Your task to perform on an android device: turn on translation in the chrome app Image 0: 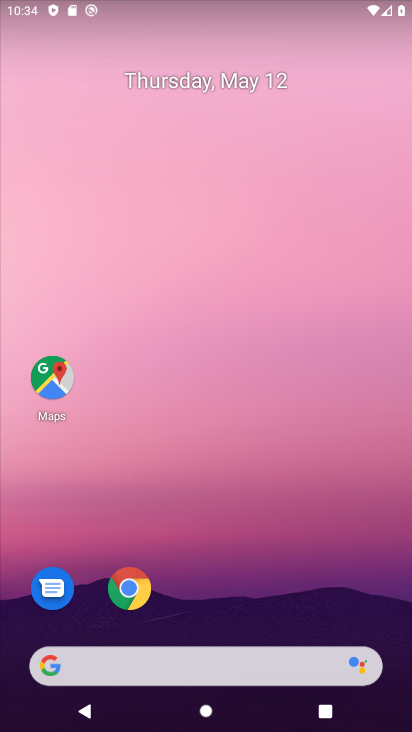
Step 0: click (133, 585)
Your task to perform on an android device: turn on translation in the chrome app Image 1: 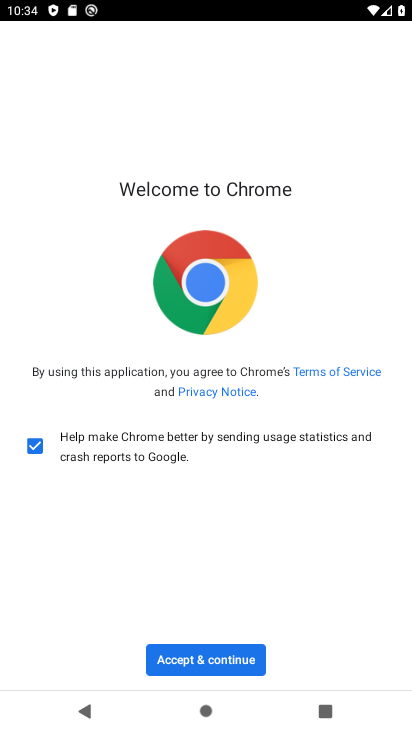
Step 1: click (232, 656)
Your task to perform on an android device: turn on translation in the chrome app Image 2: 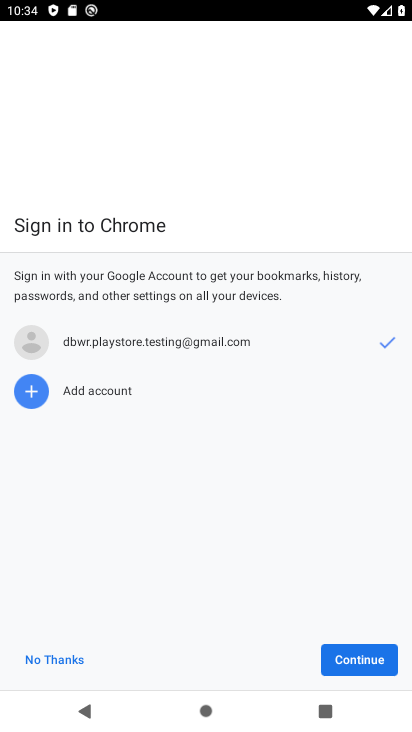
Step 2: click (346, 667)
Your task to perform on an android device: turn on translation in the chrome app Image 3: 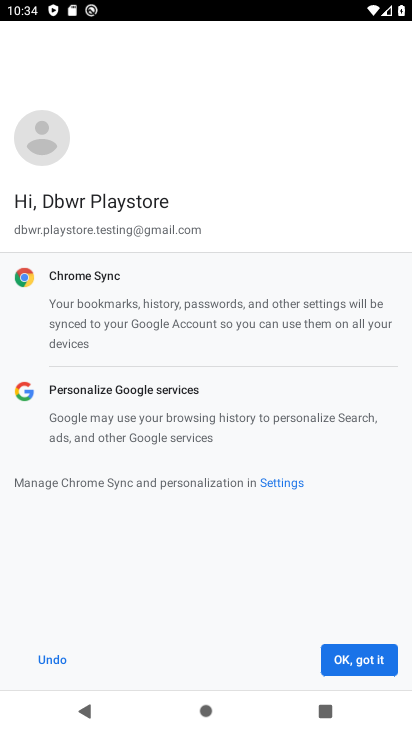
Step 3: click (350, 664)
Your task to perform on an android device: turn on translation in the chrome app Image 4: 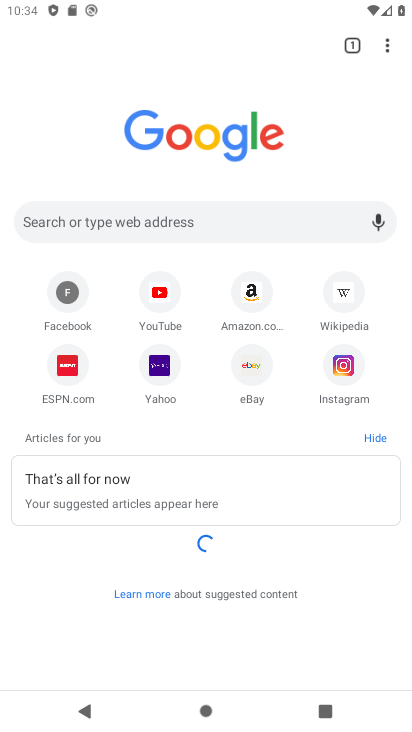
Step 4: drag from (383, 50) to (257, 382)
Your task to perform on an android device: turn on translation in the chrome app Image 5: 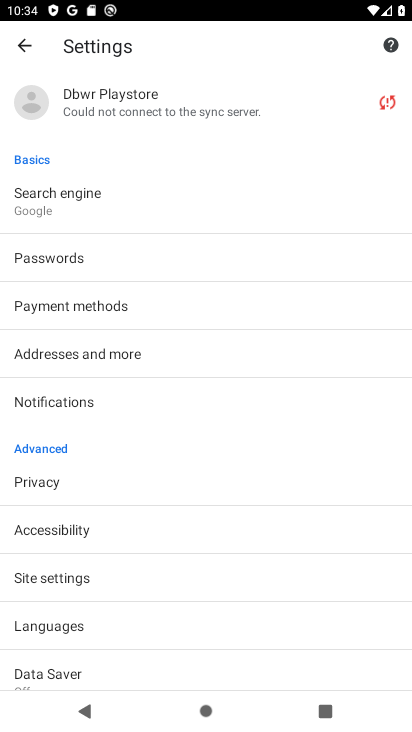
Step 5: click (105, 631)
Your task to perform on an android device: turn on translation in the chrome app Image 6: 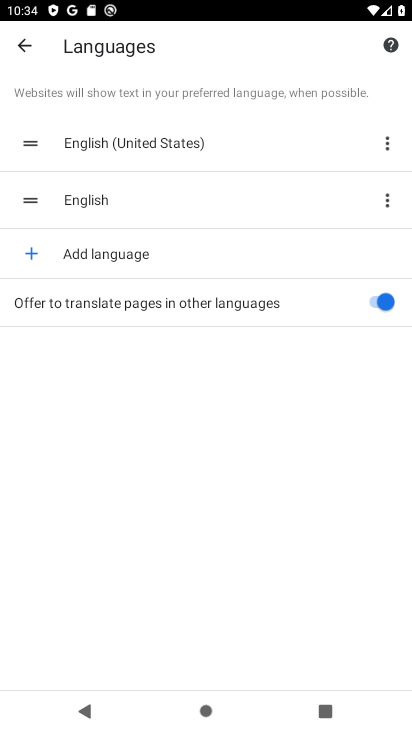
Step 6: task complete